Your task to perform on an android device: Toggle the flashlight Image 0: 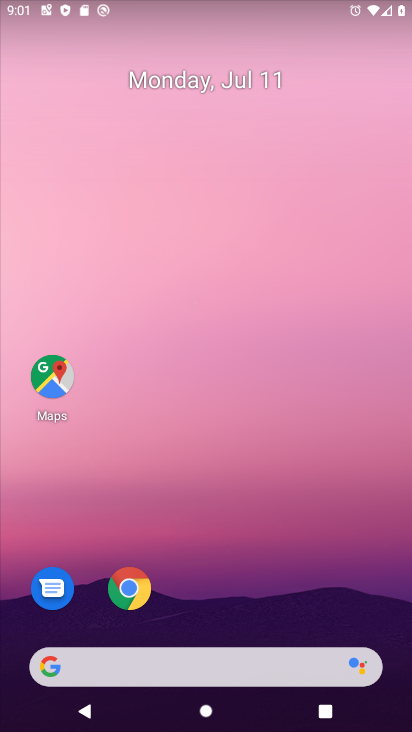
Step 0: drag from (229, 583) to (281, 31)
Your task to perform on an android device: Toggle the flashlight Image 1: 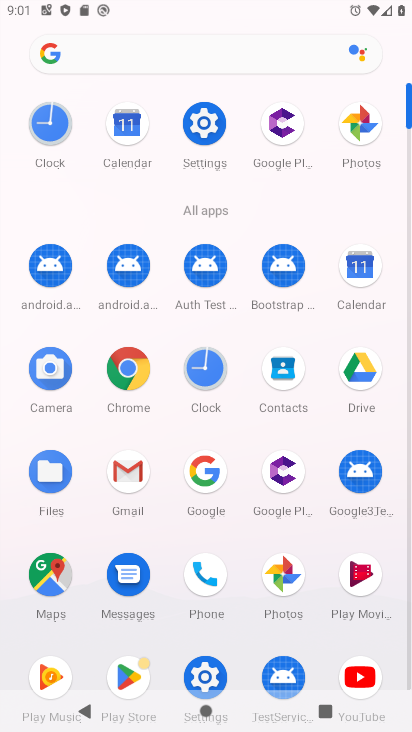
Step 1: click (218, 133)
Your task to perform on an android device: Toggle the flashlight Image 2: 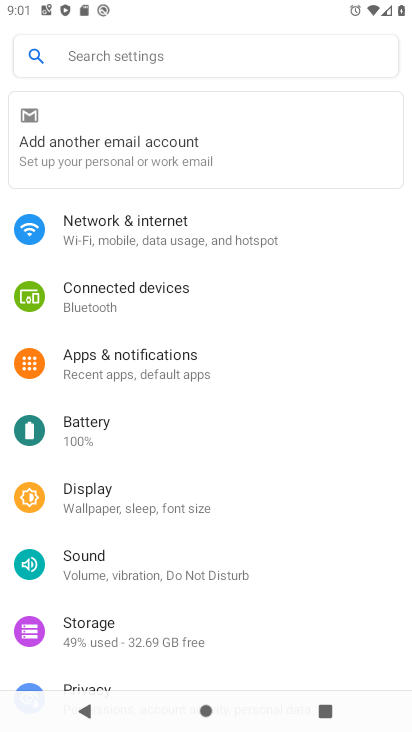
Step 2: click (168, 65)
Your task to perform on an android device: Toggle the flashlight Image 3: 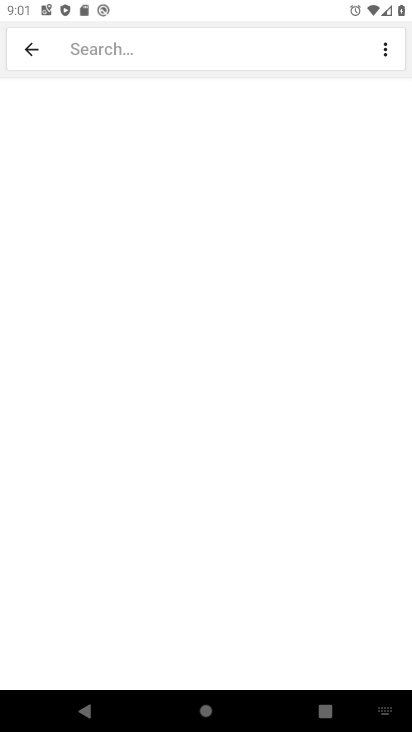
Step 3: type "flashlight"
Your task to perform on an android device: Toggle the flashlight Image 4: 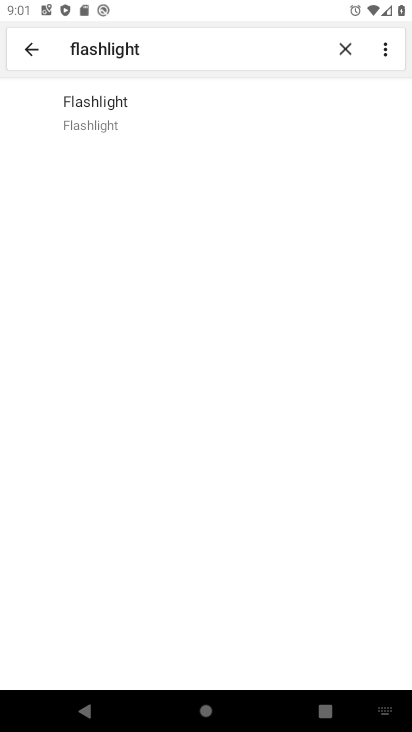
Step 4: click (78, 114)
Your task to perform on an android device: Toggle the flashlight Image 5: 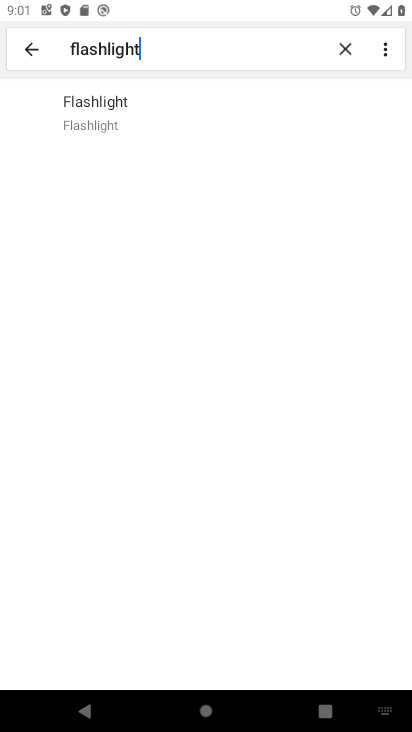
Step 5: task complete